Your task to perform on an android device: Open network settings Image 0: 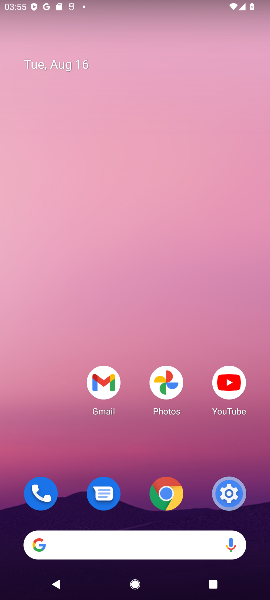
Step 0: press home button
Your task to perform on an android device: Open network settings Image 1: 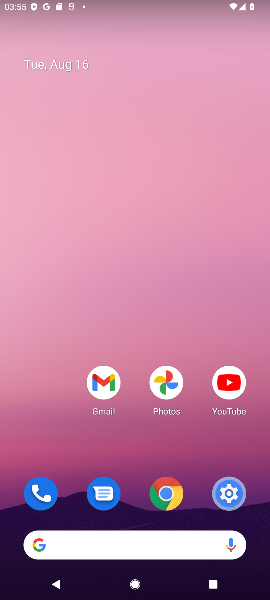
Step 1: drag from (60, 478) to (68, 165)
Your task to perform on an android device: Open network settings Image 2: 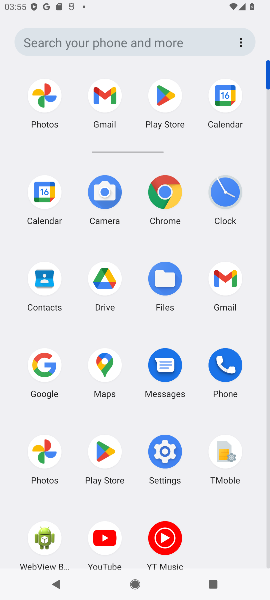
Step 2: click (163, 452)
Your task to perform on an android device: Open network settings Image 3: 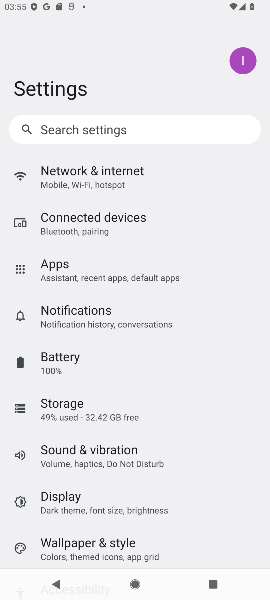
Step 3: drag from (232, 471) to (244, 371)
Your task to perform on an android device: Open network settings Image 4: 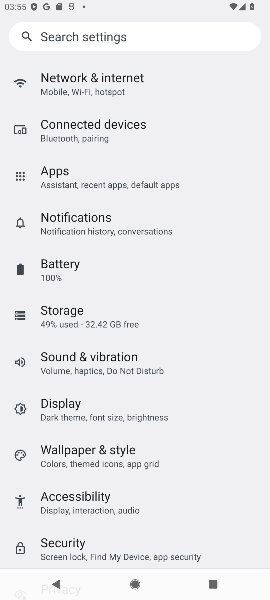
Step 4: drag from (216, 408) to (231, 306)
Your task to perform on an android device: Open network settings Image 5: 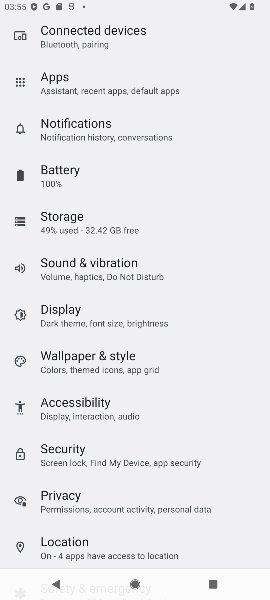
Step 5: drag from (228, 409) to (244, 277)
Your task to perform on an android device: Open network settings Image 6: 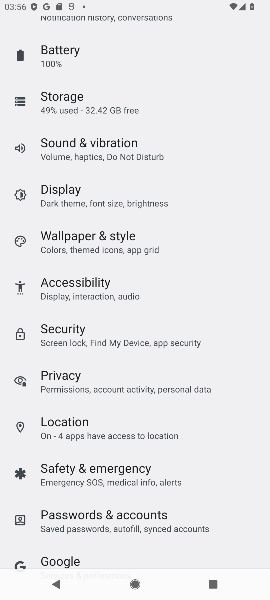
Step 6: drag from (240, 433) to (246, 316)
Your task to perform on an android device: Open network settings Image 7: 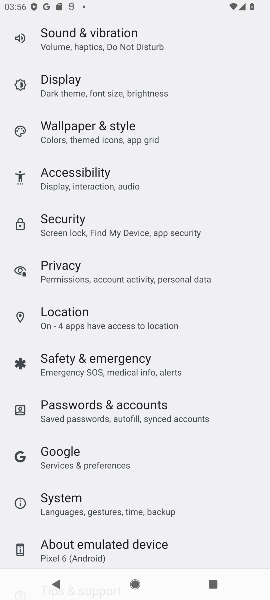
Step 7: drag from (237, 444) to (245, 347)
Your task to perform on an android device: Open network settings Image 8: 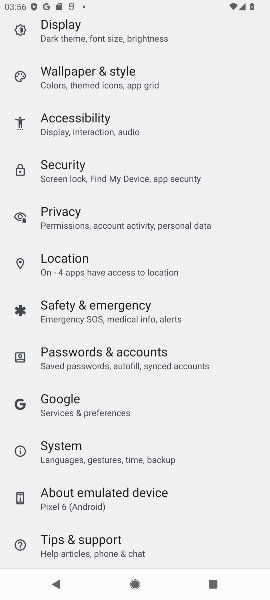
Step 8: drag from (239, 221) to (240, 362)
Your task to perform on an android device: Open network settings Image 9: 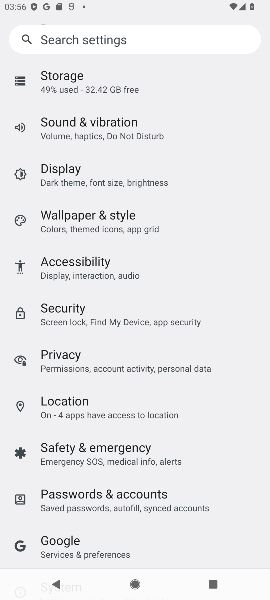
Step 9: drag from (234, 170) to (234, 283)
Your task to perform on an android device: Open network settings Image 10: 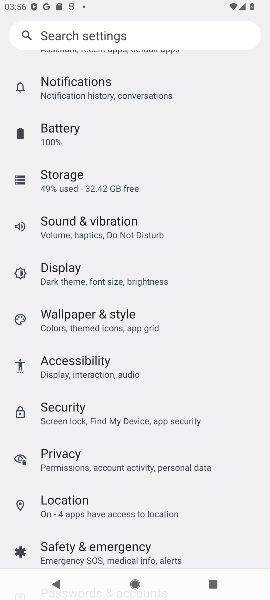
Step 10: drag from (220, 140) to (222, 274)
Your task to perform on an android device: Open network settings Image 11: 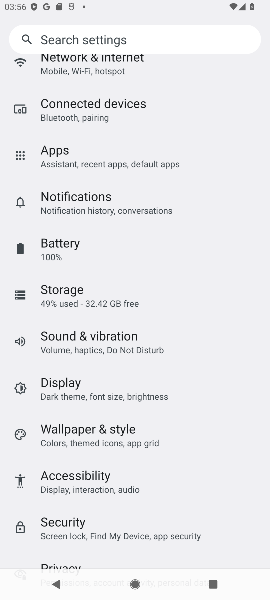
Step 11: drag from (229, 79) to (233, 264)
Your task to perform on an android device: Open network settings Image 12: 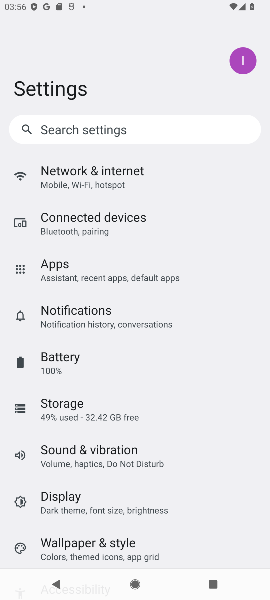
Step 12: click (138, 181)
Your task to perform on an android device: Open network settings Image 13: 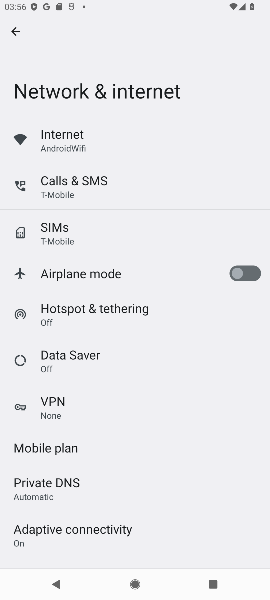
Step 13: task complete